Your task to perform on an android device: see creations saved in the google photos Image 0: 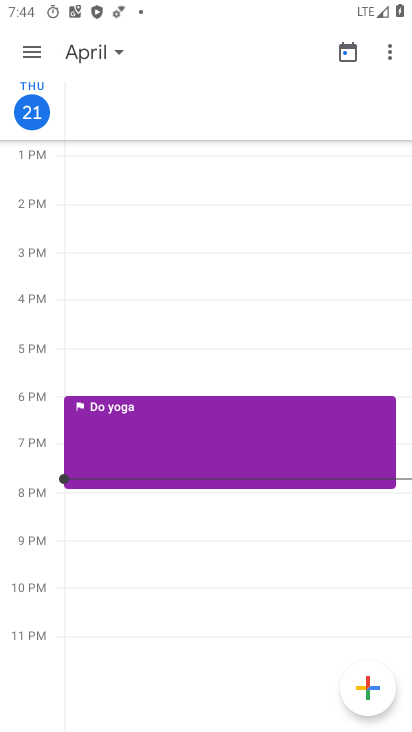
Step 0: drag from (163, 596) to (232, 223)
Your task to perform on an android device: see creations saved in the google photos Image 1: 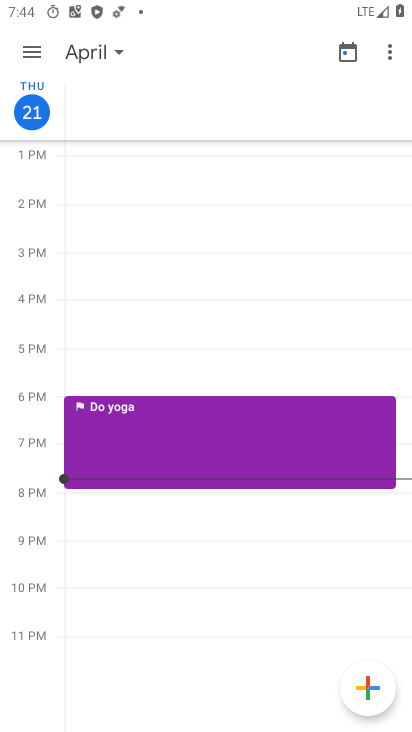
Step 1: drag from (201, 621) to (259, 287)
Your task to perform on an android device: see creations saved in the google photos Image 2: 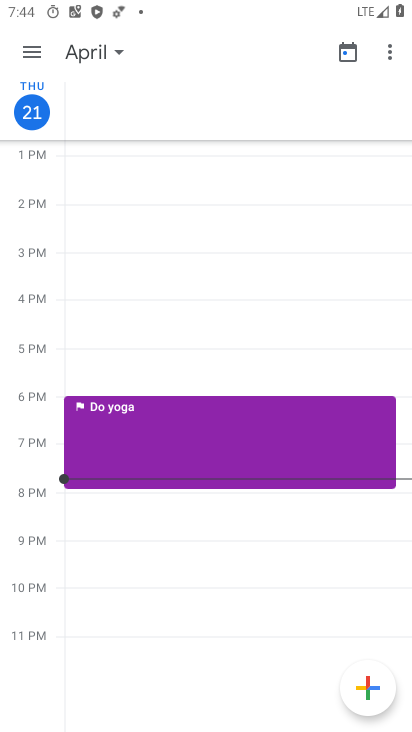
Step 2: drag from (189, 675) to (256, 176)
Your task to perform on an android device: see creations saved in the google photos Image 3: 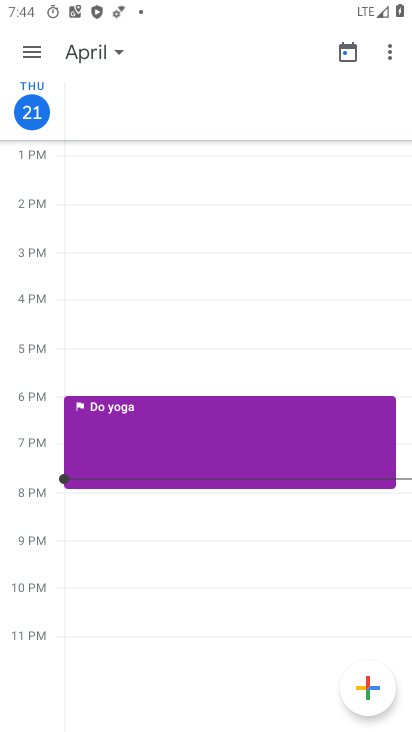
Step 3: press home button
Your task to perform on an android device: see creations saved in the google photos Image 4: 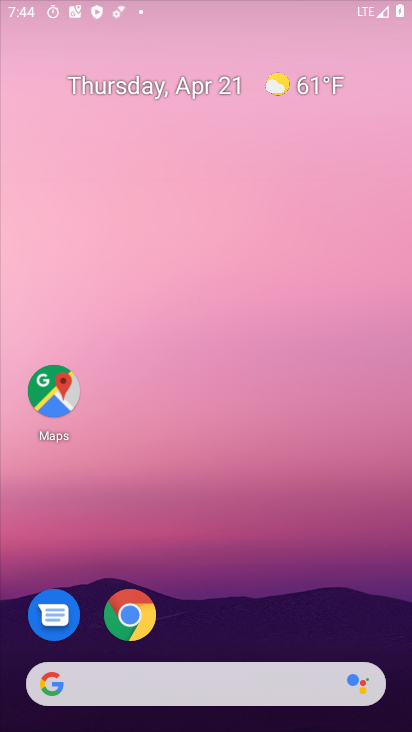
Step 4: drag from (183, 623) to (256, 135)
Your task to perform on an android device: see creations saved in the google photos Image 5: 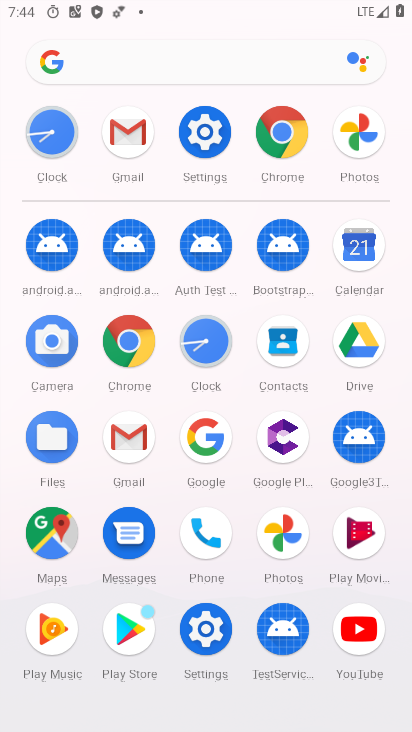
Step 5: click (272, 533)
Your task to perform on an android device: see creations saved in the google photos Image 6: 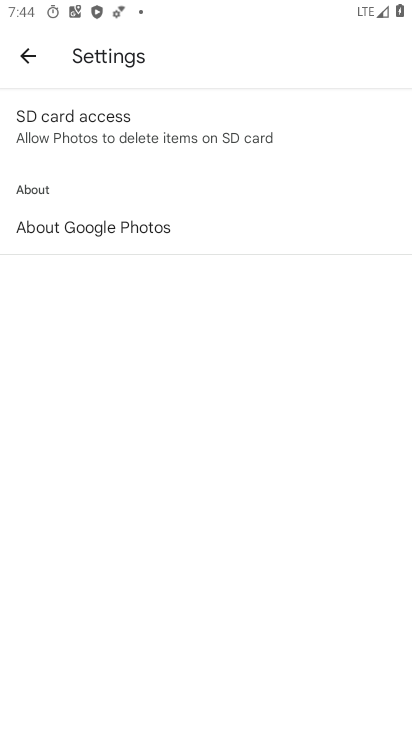
Step 6: click (27, 57)
Your task to perform on an android device: see creations saved in the google photos Image 7: 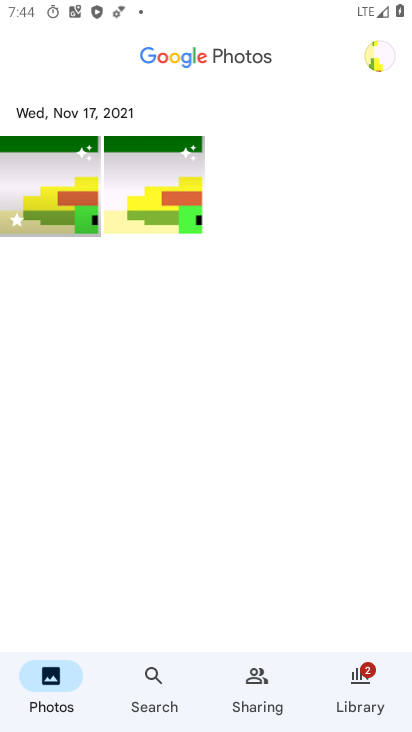
Step 7: click (168, 671)
Your task to perform on an android device: see creations saved in the google photos Image 8: 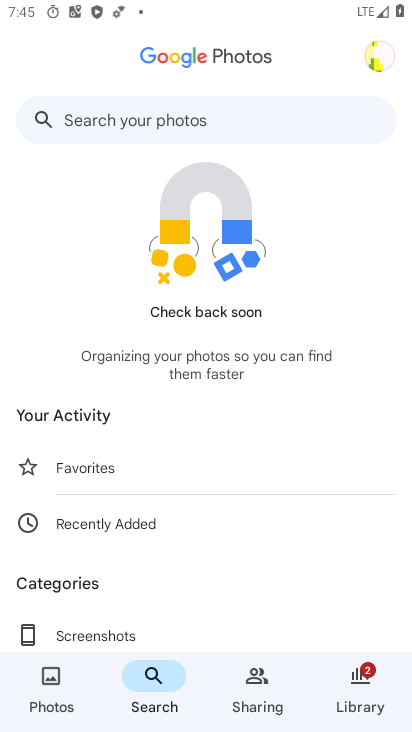
Step 8: drag from (189, 600) to (259, 91)
Your task to perform on an android device: see creations saved in the google photos Image 9: 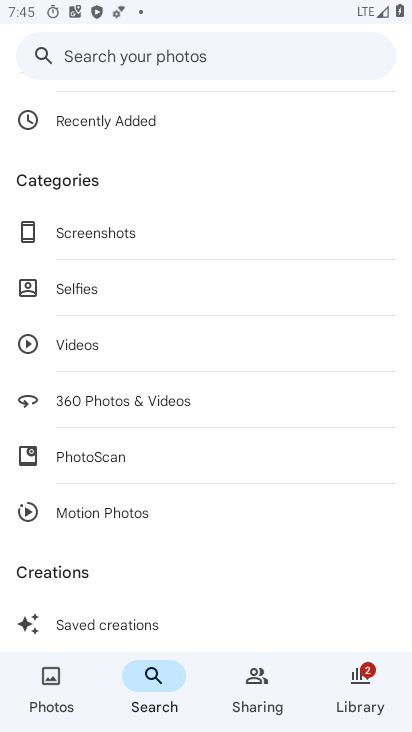
Step 9: drag from (187, 526) to (299, 124)
Your task to perform on an android device: see creations saved in the google photos Image 10: 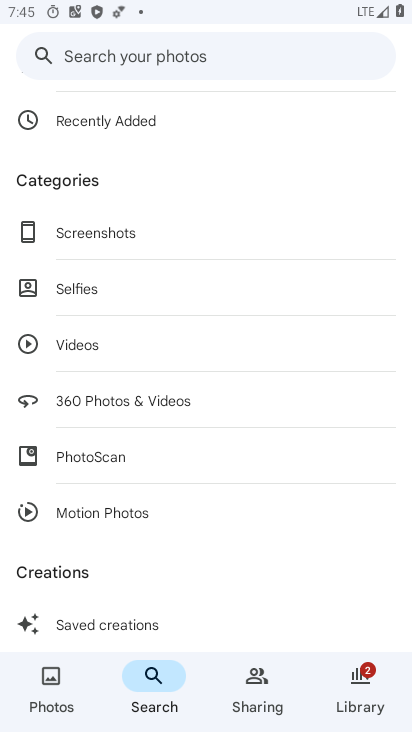
Step 10: click (108, 617)
Your task to perform on an android device: see creations saved in the google photos Image 11: 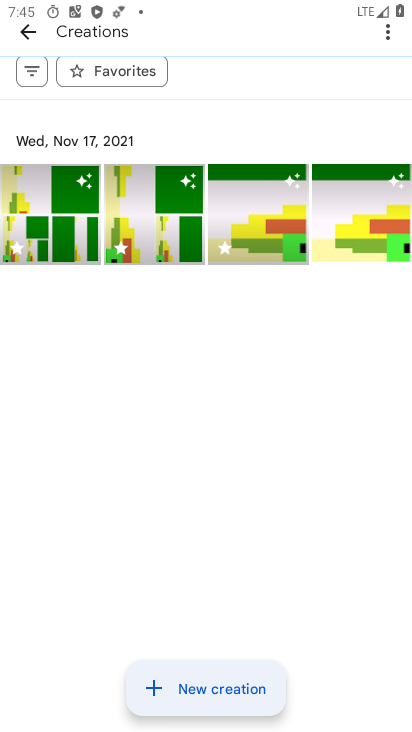
Step 11: drag from (196, 555) to (360, 42)
Your task to perform on an android device: see creations saved in the google photos Image 12: 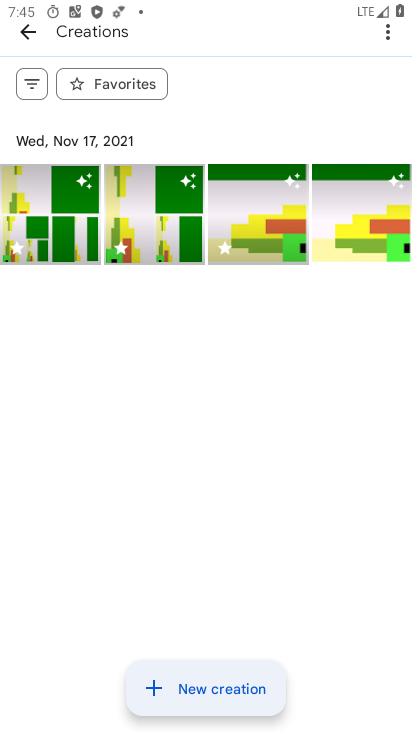
Step 12: click (170, 198)
Your task to perform on an android device: see creations saved in the google photos Image 13: 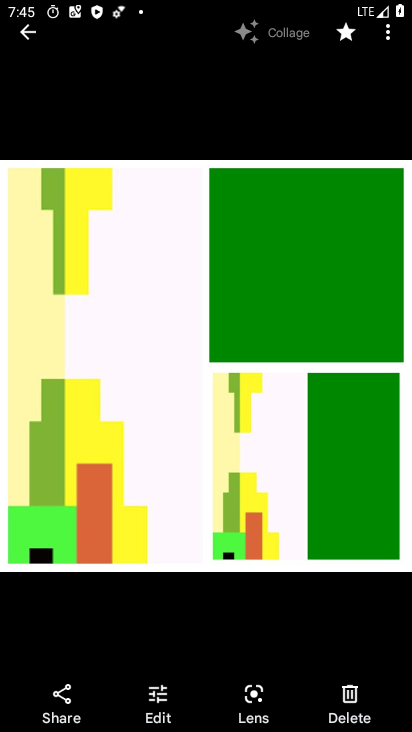
Step 13: drag from (377, 391) to (14, 375)
Your task to perform on an android device: see creations saved in the google photos Image 14: 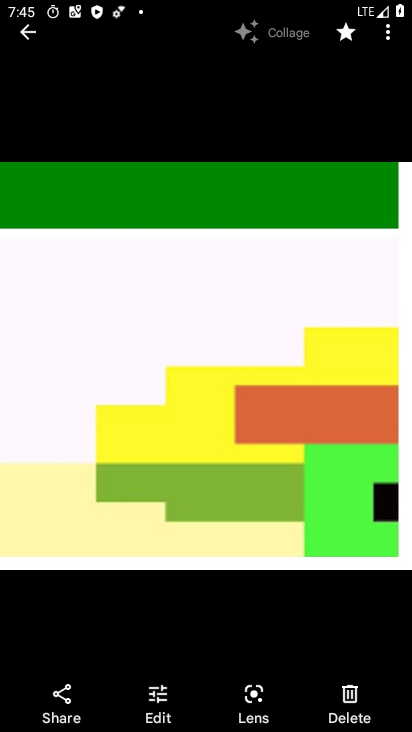
Step 14: drag from (370, 425) to (19, 415)
Your task to perform on an android device: see creations saved in the google photos Image 15: 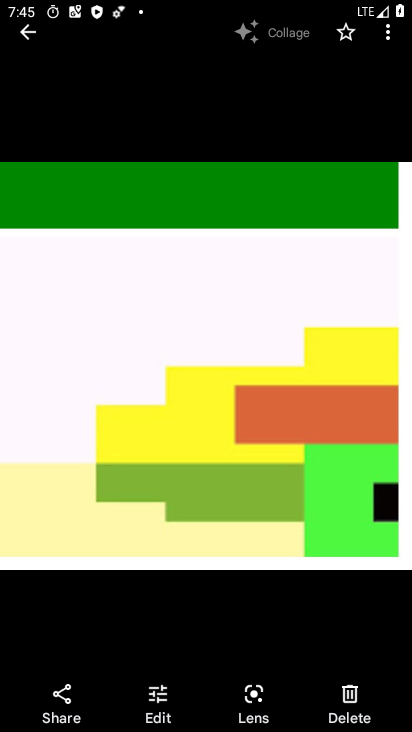
Step 15: drag from (378, 417) to (49, 417)
Your task to perform on an android device: see creations saved in the google photos Image 16: 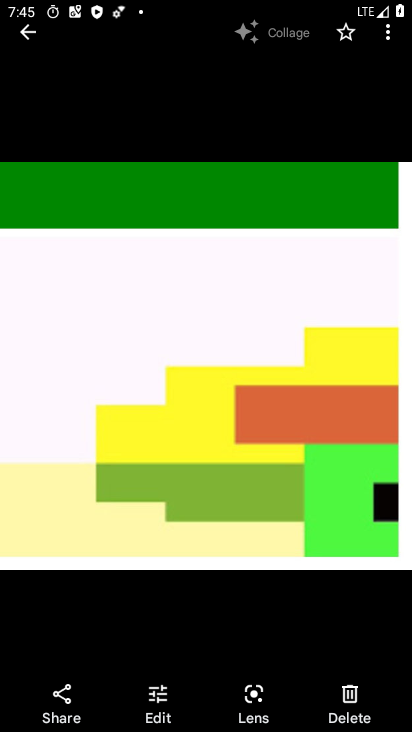
Step 16: drag from (381, 415) to (30, 473)
Your task to perform on an android device: see creations saved in the google photos Image 17: 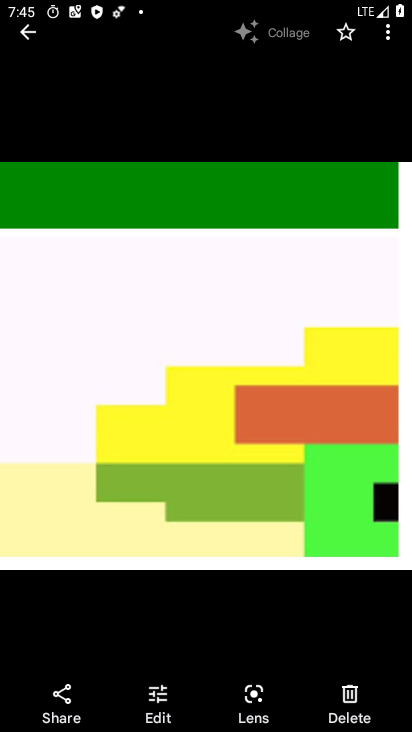
Step 17: drag from (293, 450) to (324, 107)
Your task to perform on an android device: see creations saved in the google photos Image 18: 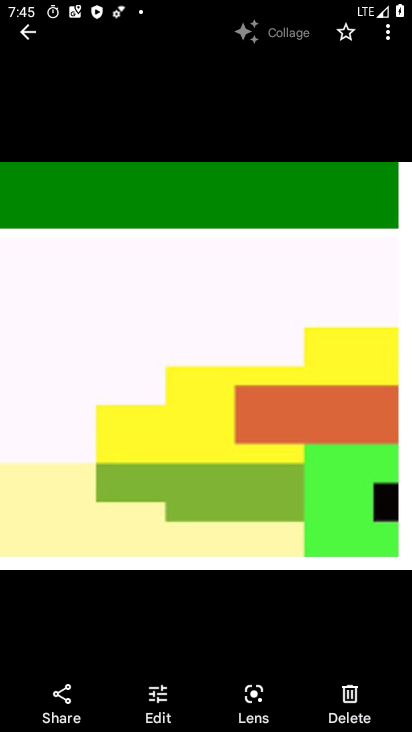
Step 18: drag from (360, 376) to (17, 298)
Your task to perform on an android device: see creations saved in the google photos Image 19: 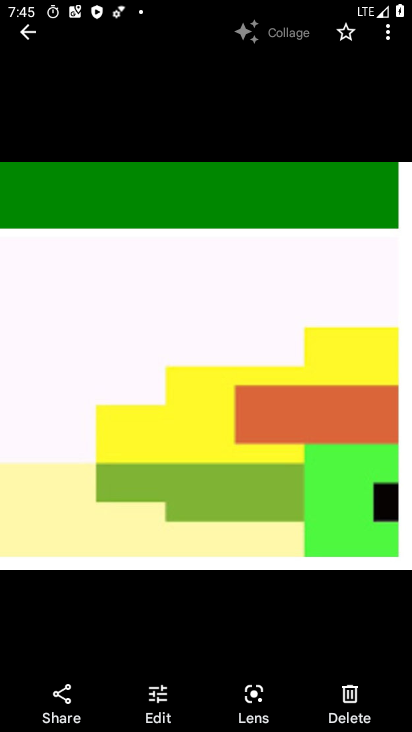
Step 19: drag from (389, 345) to (19, 386)
Your task to perform on an android device: see creations saved in the google photos Image 20: 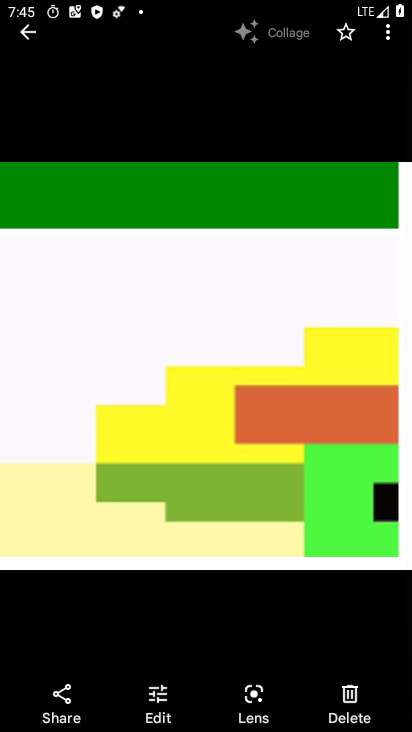
Step 20: drag from (324, 489) to (5, 198)
Your task to perform on an android device: see creations saved in the google photos Image 21: 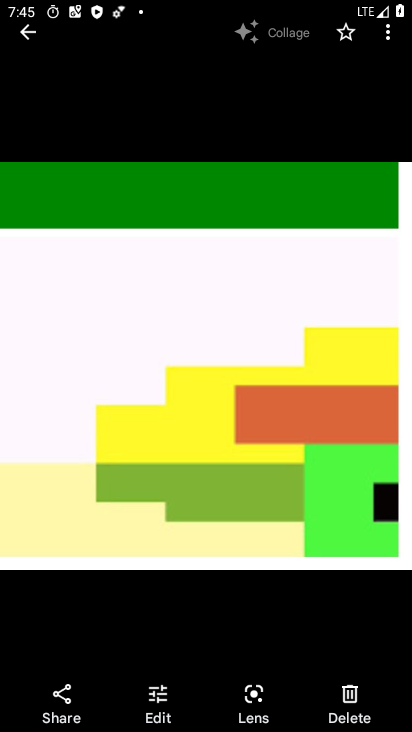
Step 21: press back button
Your task to perform on an android device: see creations saved in the google photos Image 22: 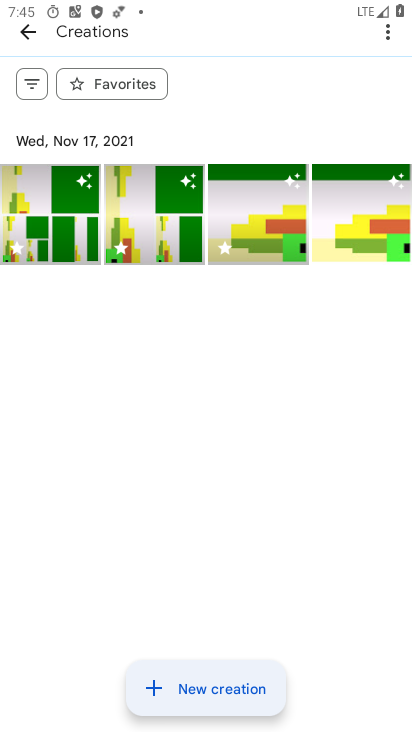
Step 22: click (197, 686)
Your task to perform on an android device: see creations saved in the google photos Image 23: 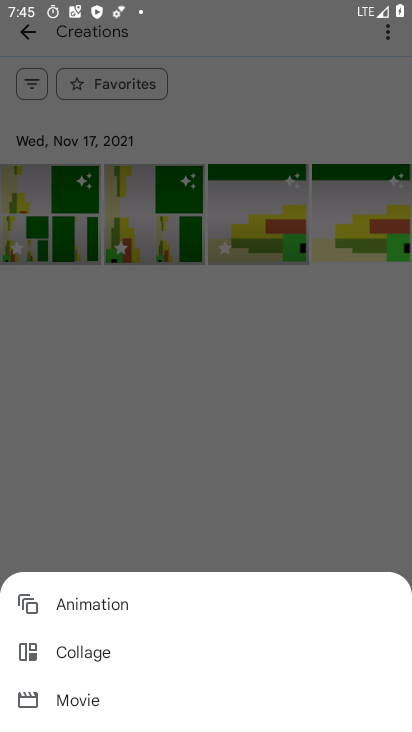
Step 23: click (197, 457)
Your task to perform on an android device: see creations saved in the google photos Image 24: 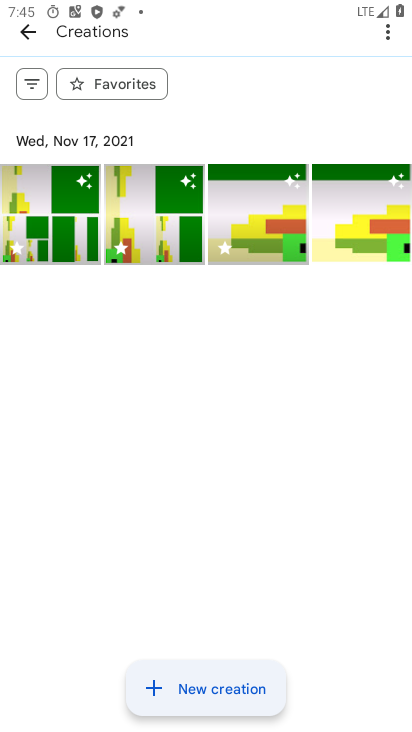
Step 24: click (172, 690)
Your task to perform on an android device: see creations saved in the google photos Image 25: 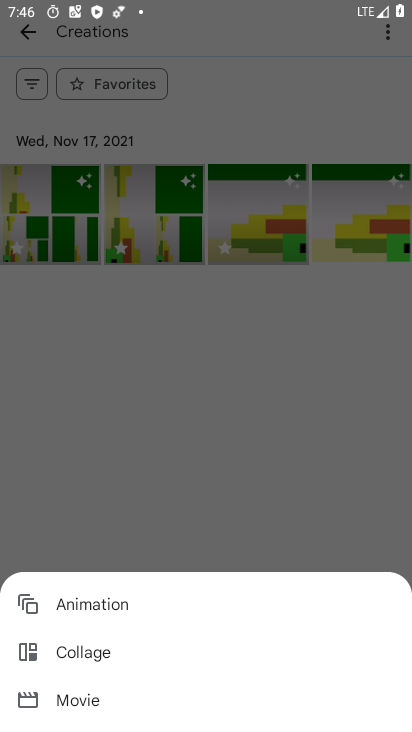
Step 25: click (165, 444)
Your task to perform on an android device: see creations saved in the google photos Image 26: 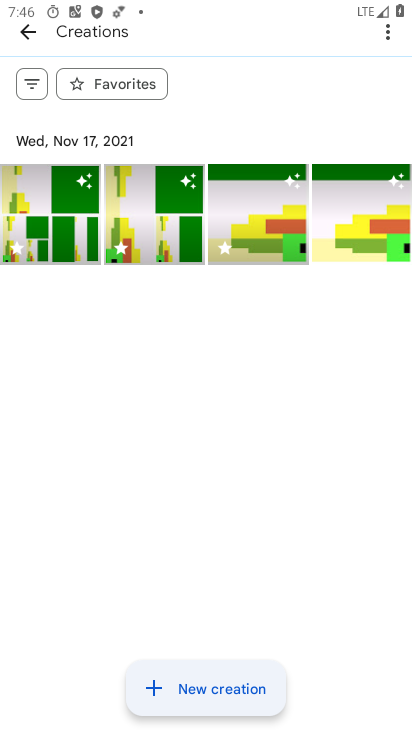
Step 26: click (171, 191)
Your task to perform on an android device: see creations saved in the google photos Image 27: 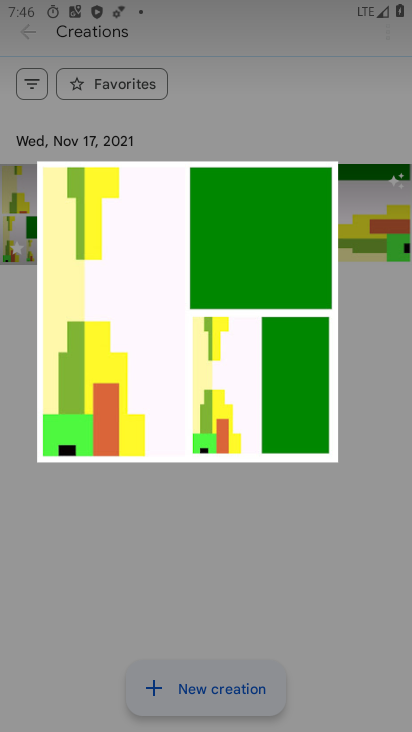
Step 27: click (171, 191)
Your task to perform on an android device: see creations saved in the google photos Image 28: 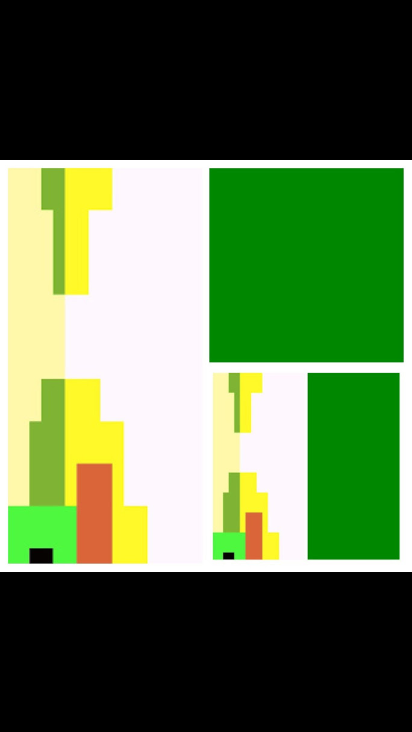
Step 28: task complete